Your task to perform on an android device: What's the weather like in Tokyo? Image 0: 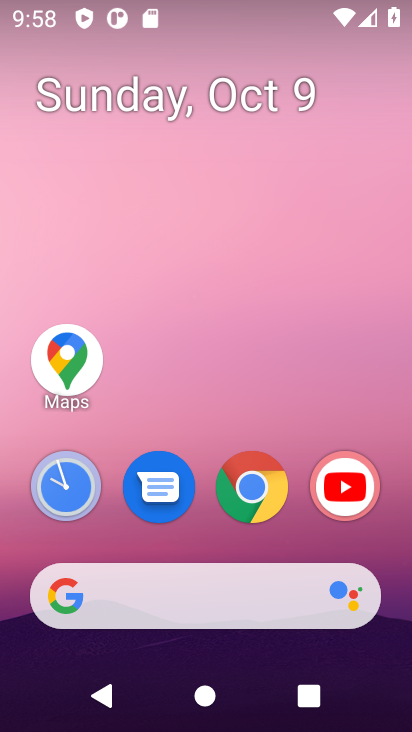
Step 0: click (254, 486)
Your task to perform on an android device: What's the weather like in Tokyo? Image 1: 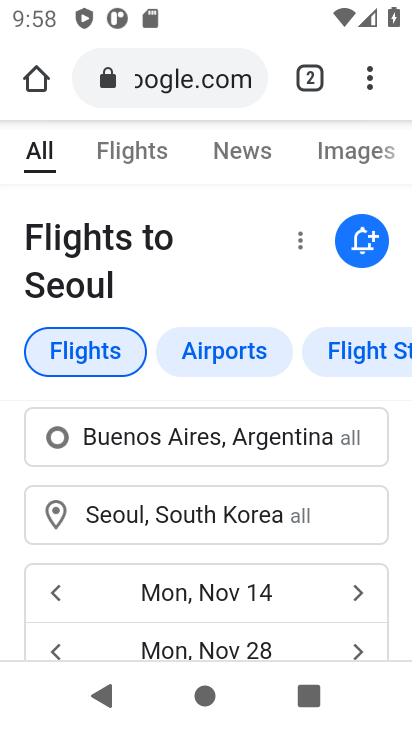
Step 1: drag from (368, 83) to (85, 161)
Your task to perform on an android device: What's the weather like in Tokyo? Image 2: 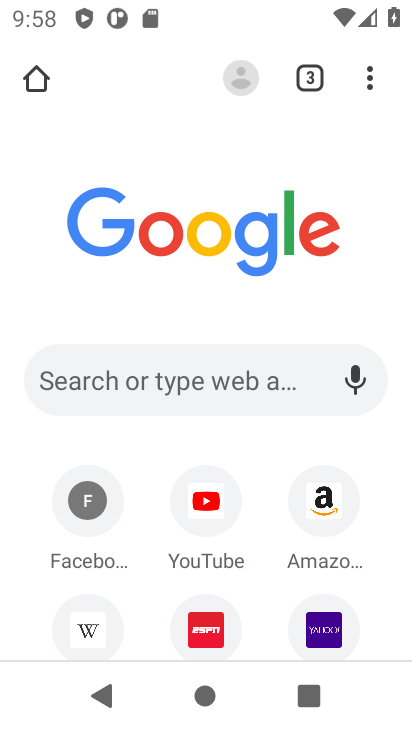
Step 2: click (177, 380)
Your task to perform on an android device: What's the weather like in Tokyo? Image 3: 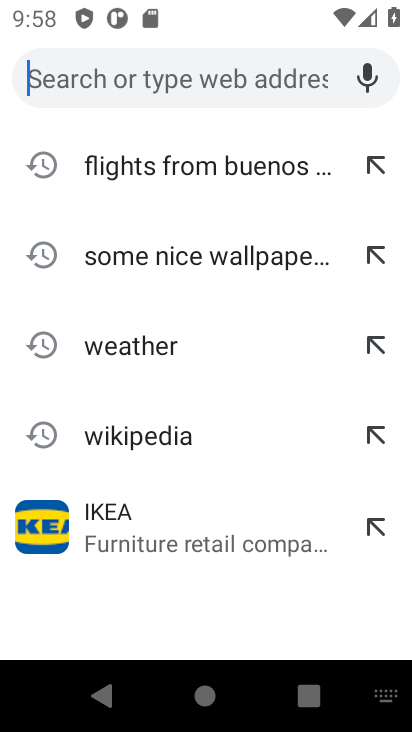
Step 3: type "What's the weather like in Tokyo?"
Your task to perform on an android device: What's the weather like in Tokyo? Image 4: 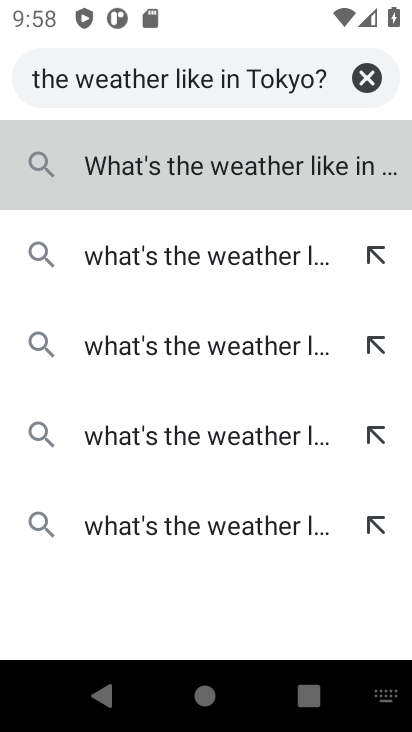
Step 4: type ""
Your task to perform on an android device: What's the weather like in Tokyo? Image 5: 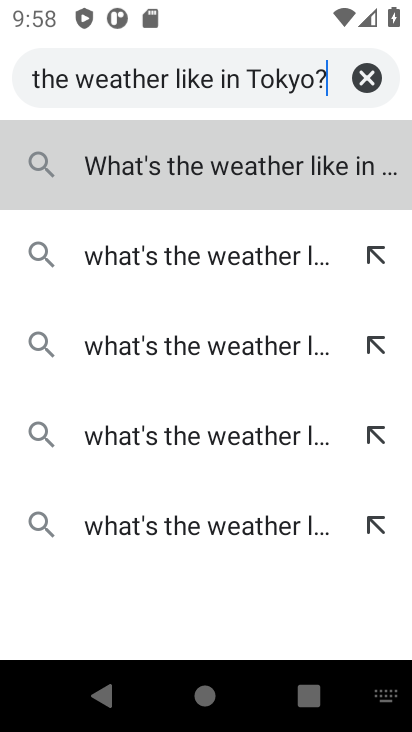
Step 5: click (232, 166)
Your task to perform on an android device: What's the weather like in Tokyo? Image 6: 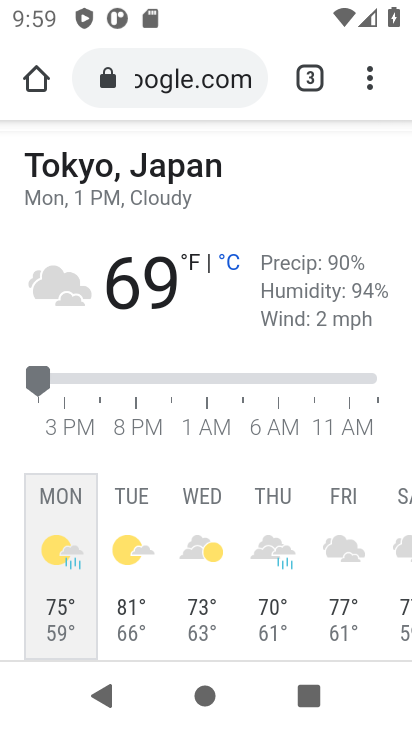
Step 6: task complete